Your task to perform on an android device: turn on sleep mode Image 0: 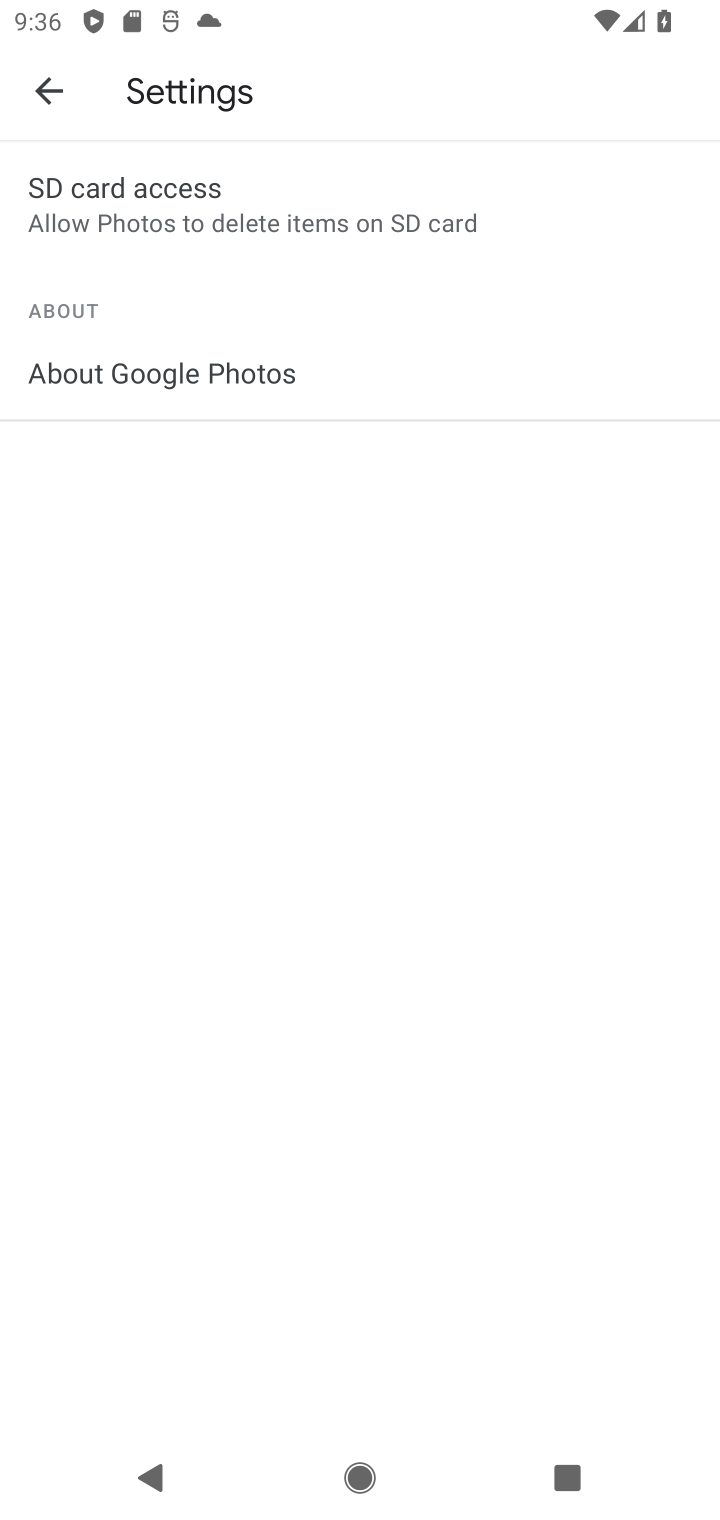
Step 0: press home button
Your task to perform on an android device: turn on sleep mode Image 1: 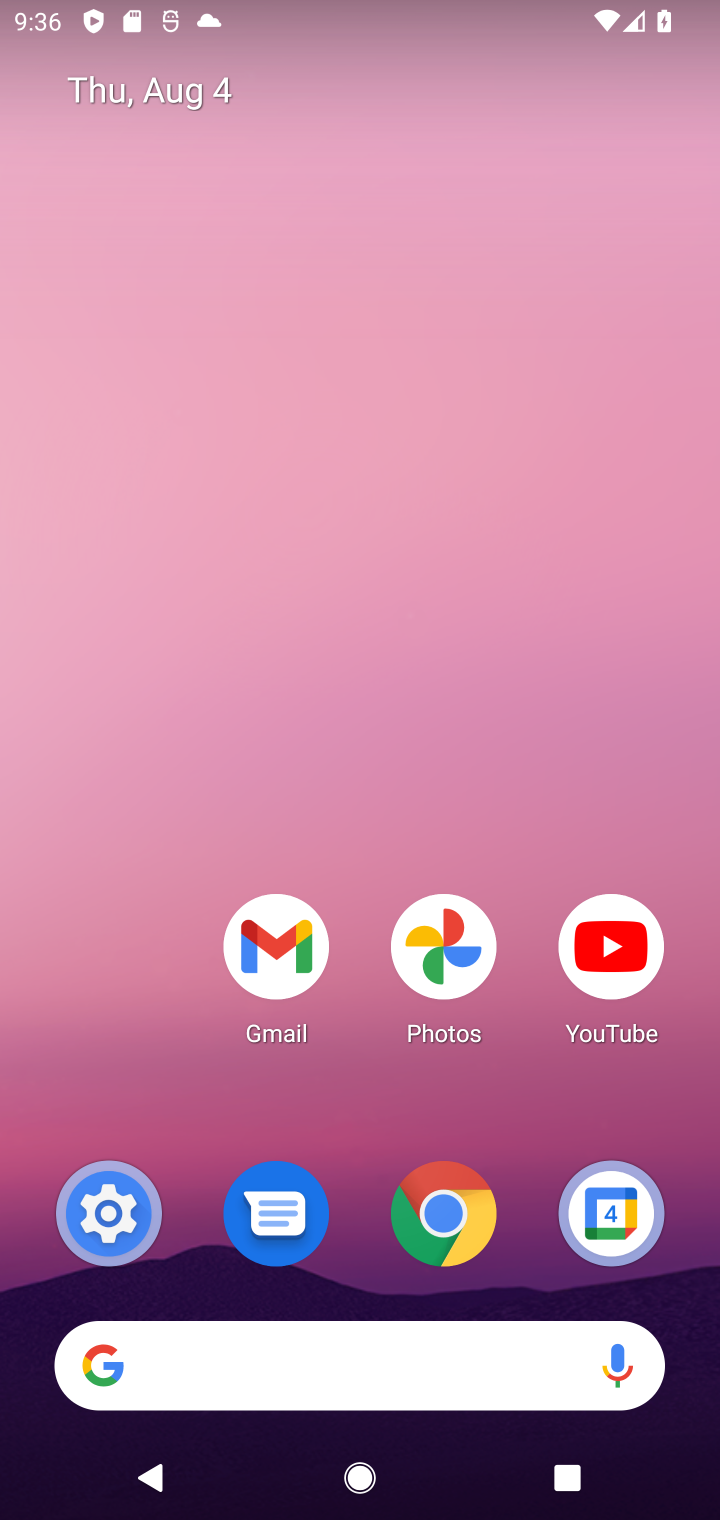
Step 1: drag from (378, 1132) to (443, 5)
Your task to perform on an android device: turn on sleep mode Image 2: 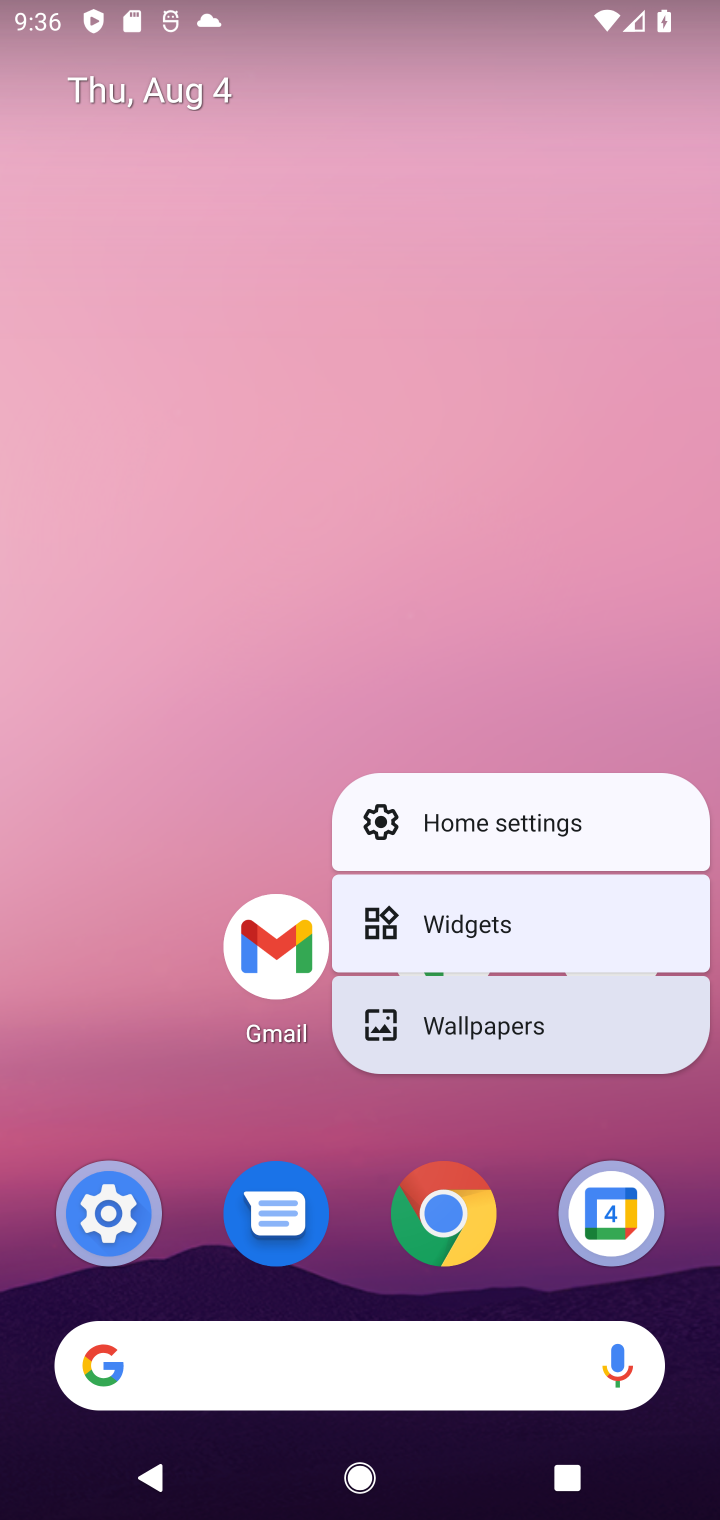
Step 2: click (202, 665)
Your task to perform on an android device: turn on sleep mode Image 3: 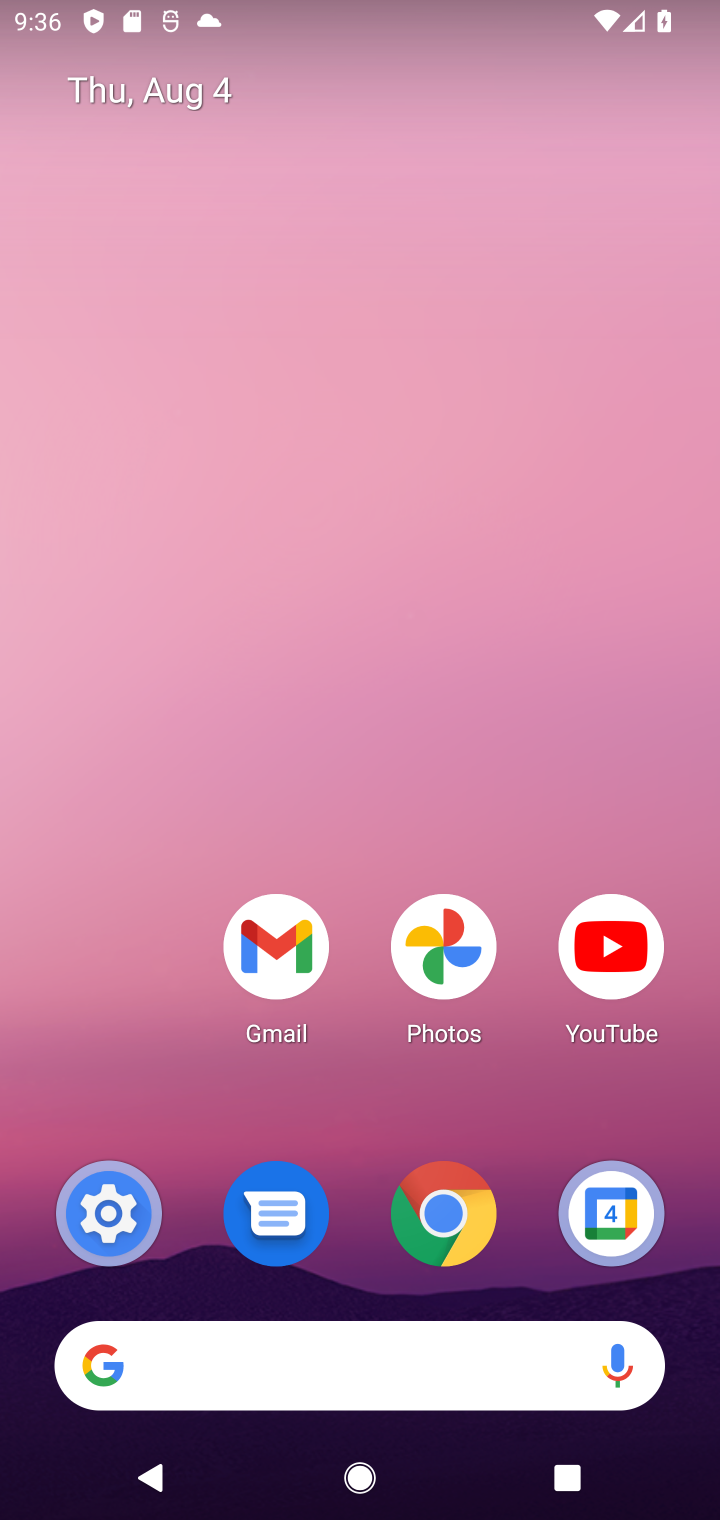
Step 3: drag from (359, 1129) to (363, 42)
Your task to perform on an android device: turn on sleep mode Image 4: 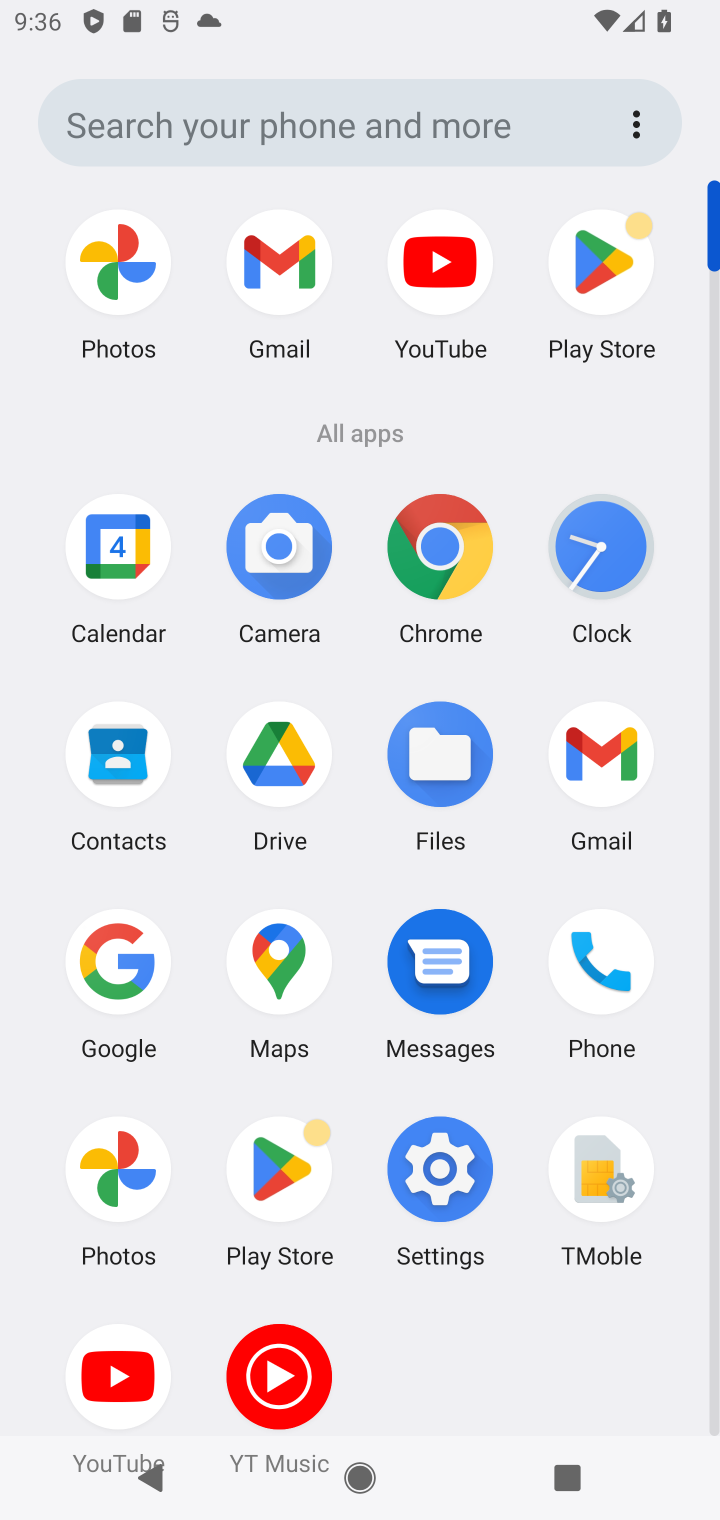
Step 4: click (433, 1152)
Your task to perform on an android device: turn on sleep mode Image 5: 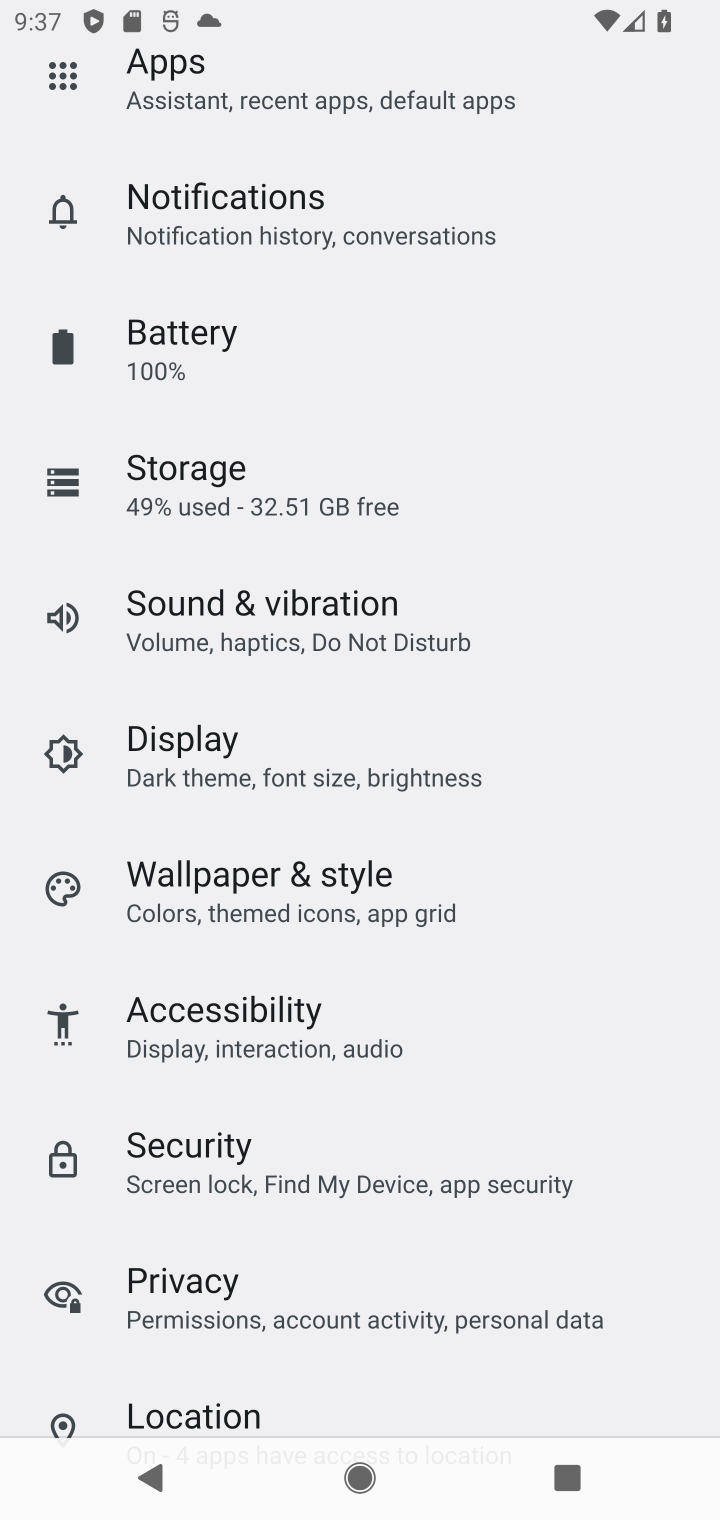
Step 5: click (257, 735)
Your task to perform on an android device: turn on sleep mode Image 6: 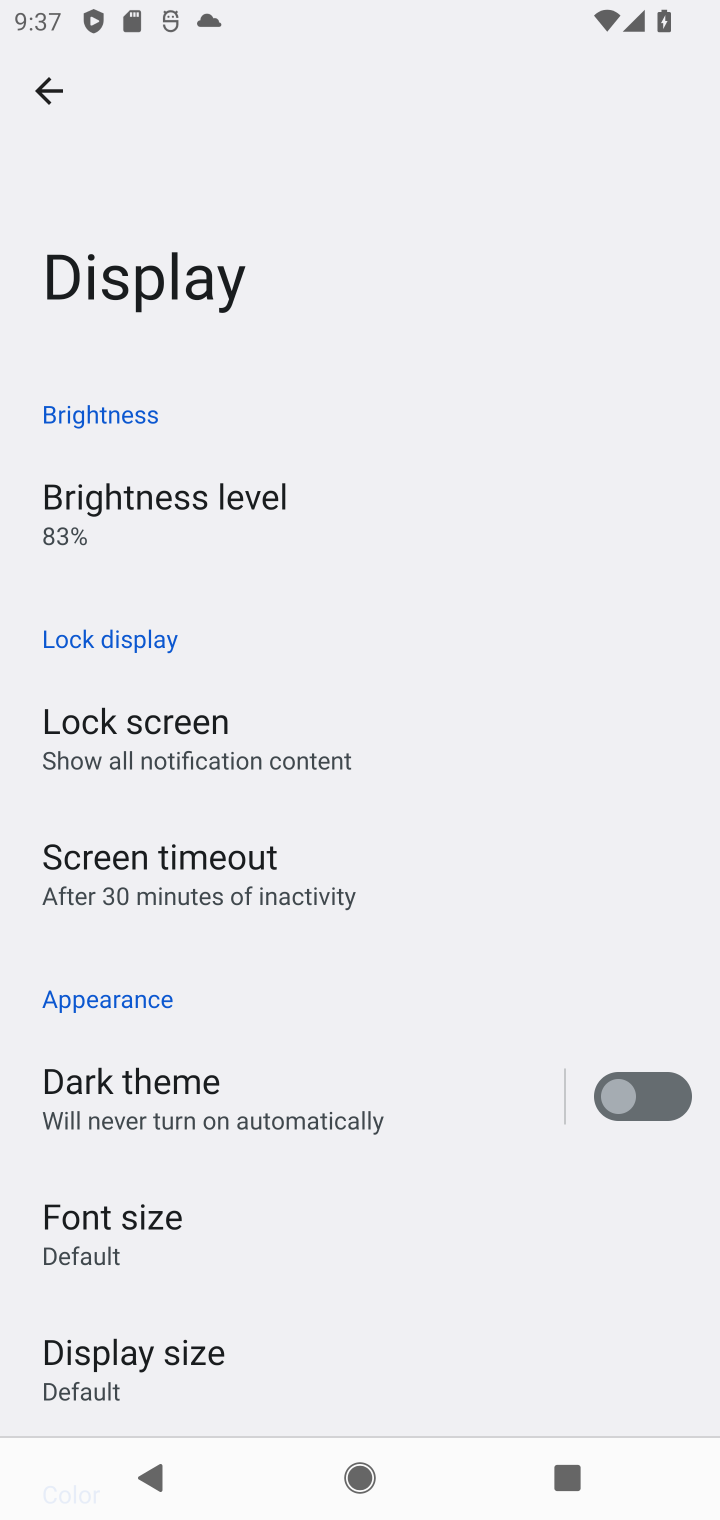
Step 6: task complete